Your task to perform on an android device: open app "Firefox Browser" (install if not already installed) and go to login screen Image 0: 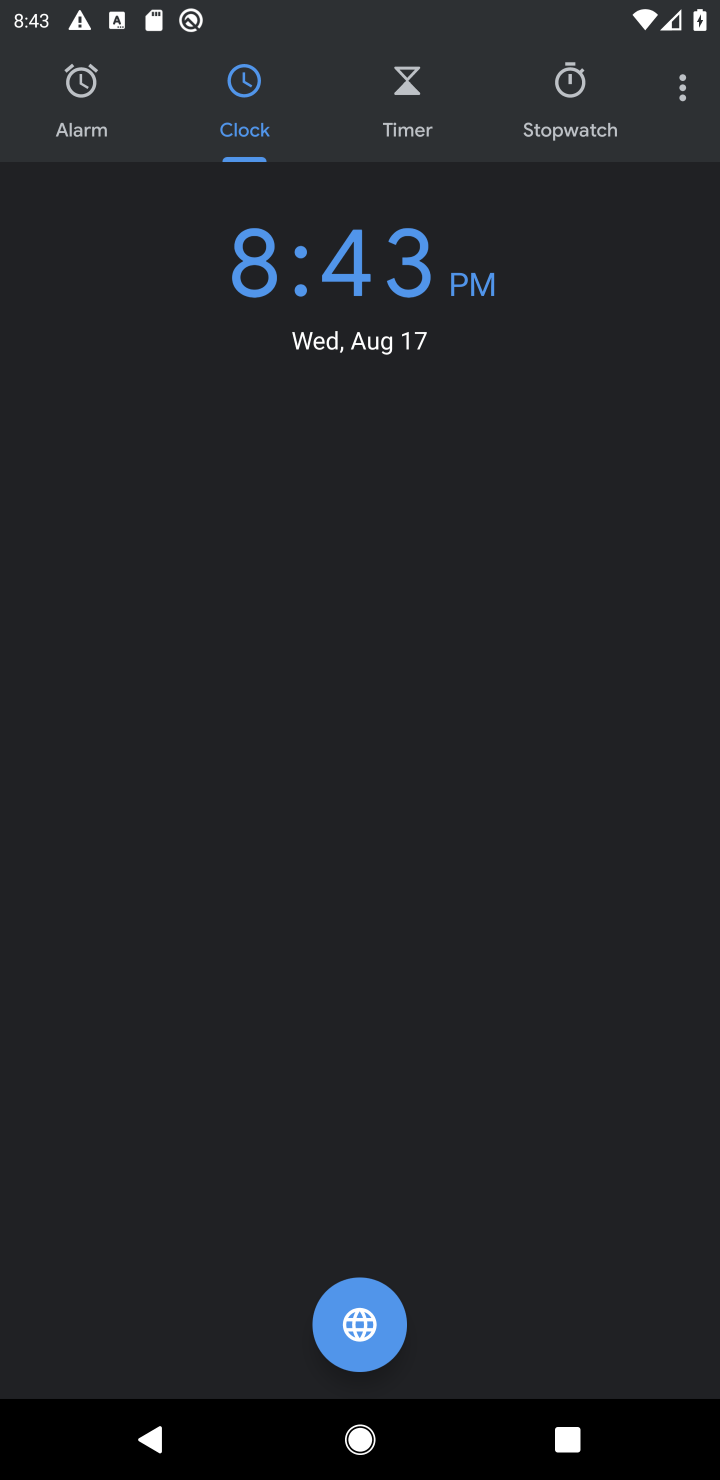
Step 0: press home button
Your task to perform on an android device: open app "Firefox Browser" (install if not already installed) and go to login screen Image 1: 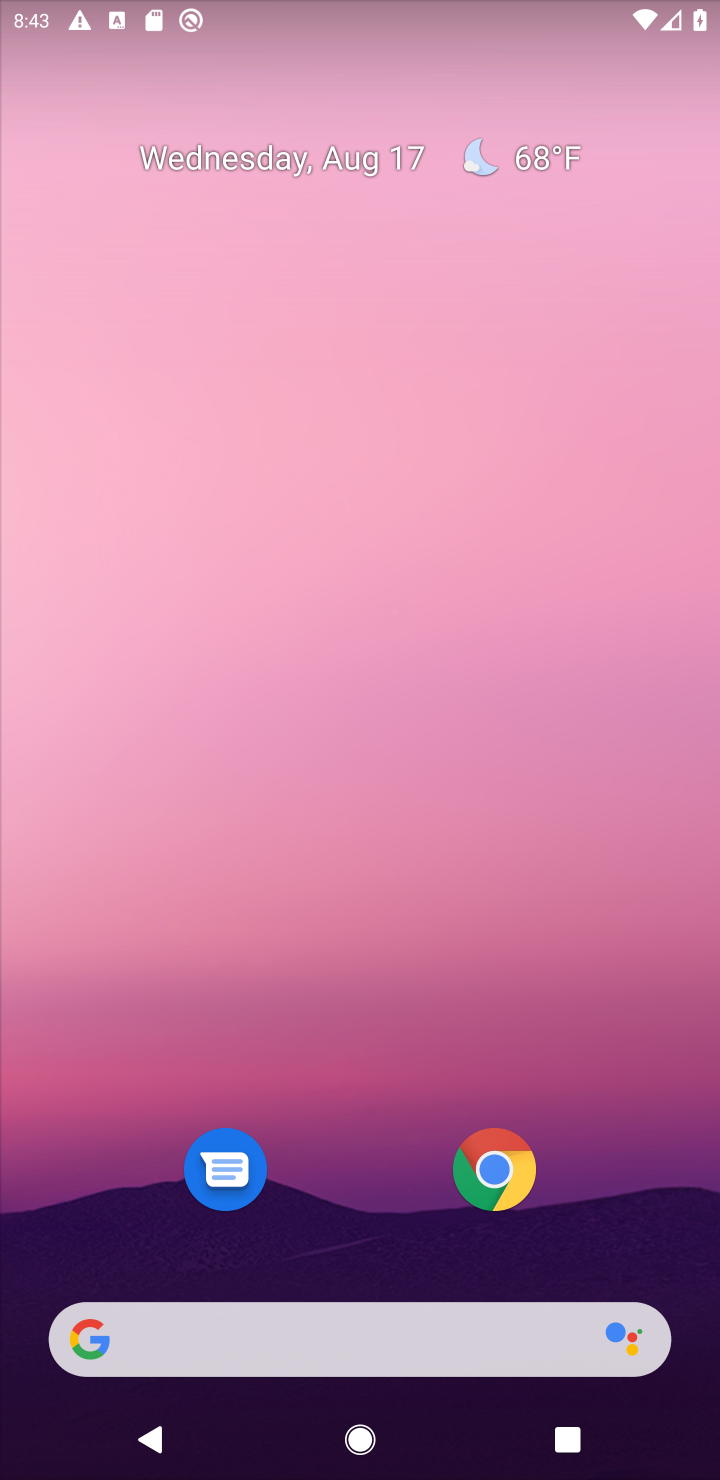
Step 1: drag from (349, 1284) to (357, 87)
Your task to perform on an android device: open app "Firefox Browser" (install if not already installed) and go to login screen Image 2: 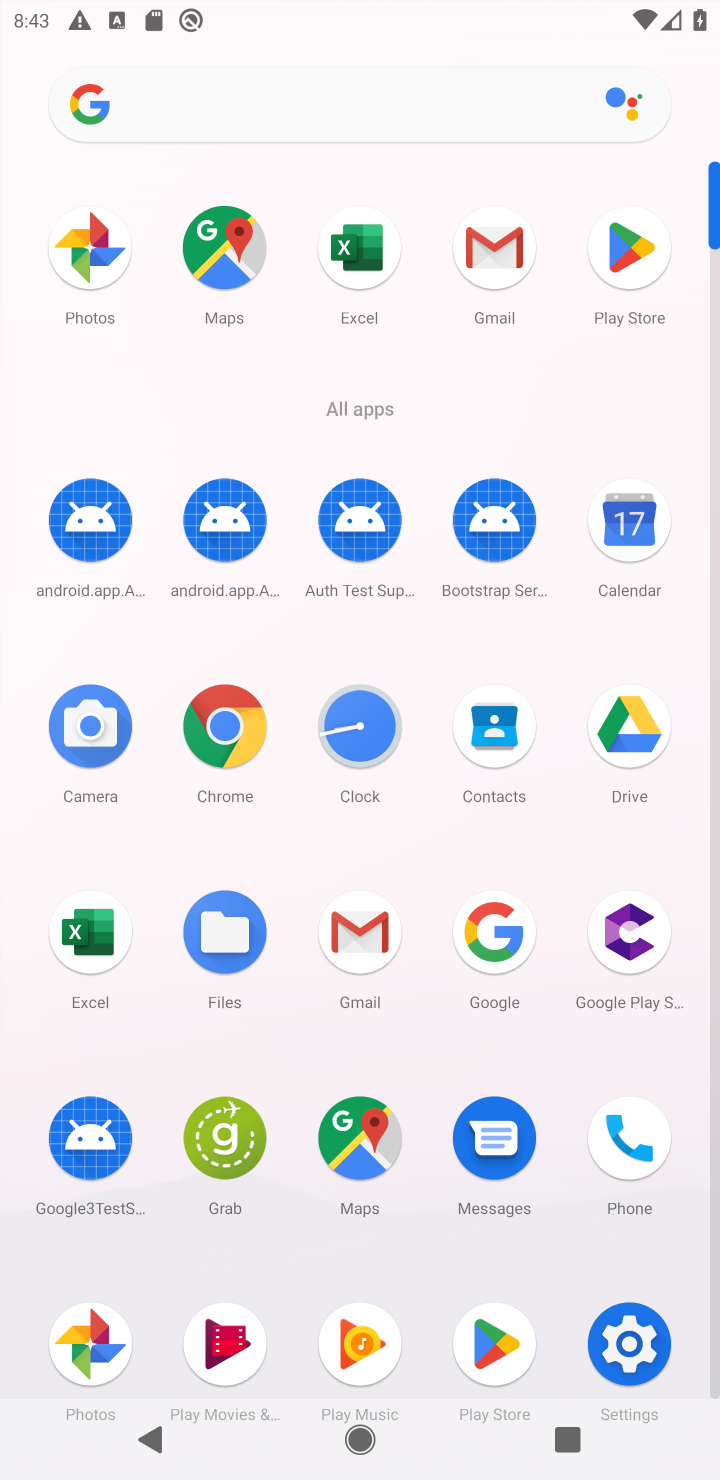
Step 2: click (644, 259)
Your task to perform on an android device: open app "Firefox Browser" (install if not already installed) and go to login screen Image 3: 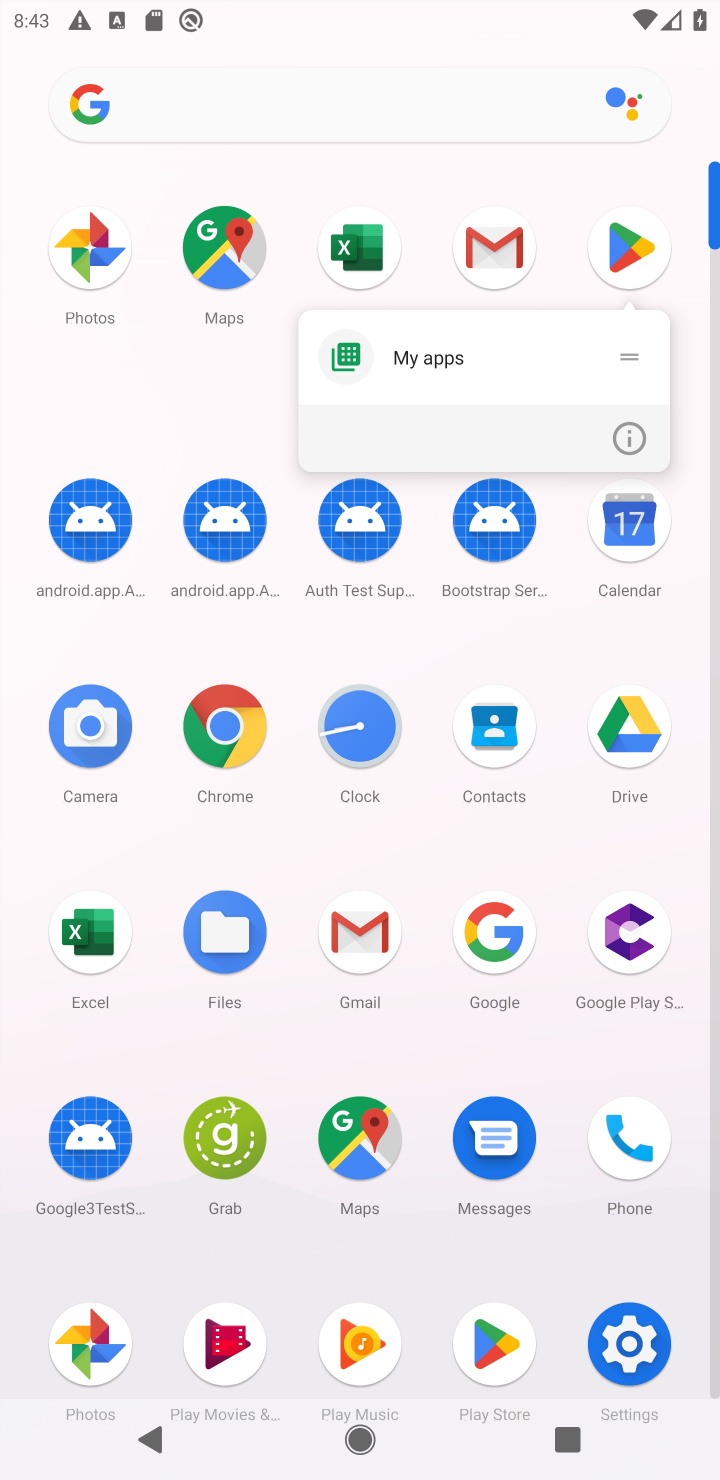
Step 3: click (645, 259)
Your task to perform on an android device: open app "Firefox Browser" (install if not already installed) and go to login screen Image 4: 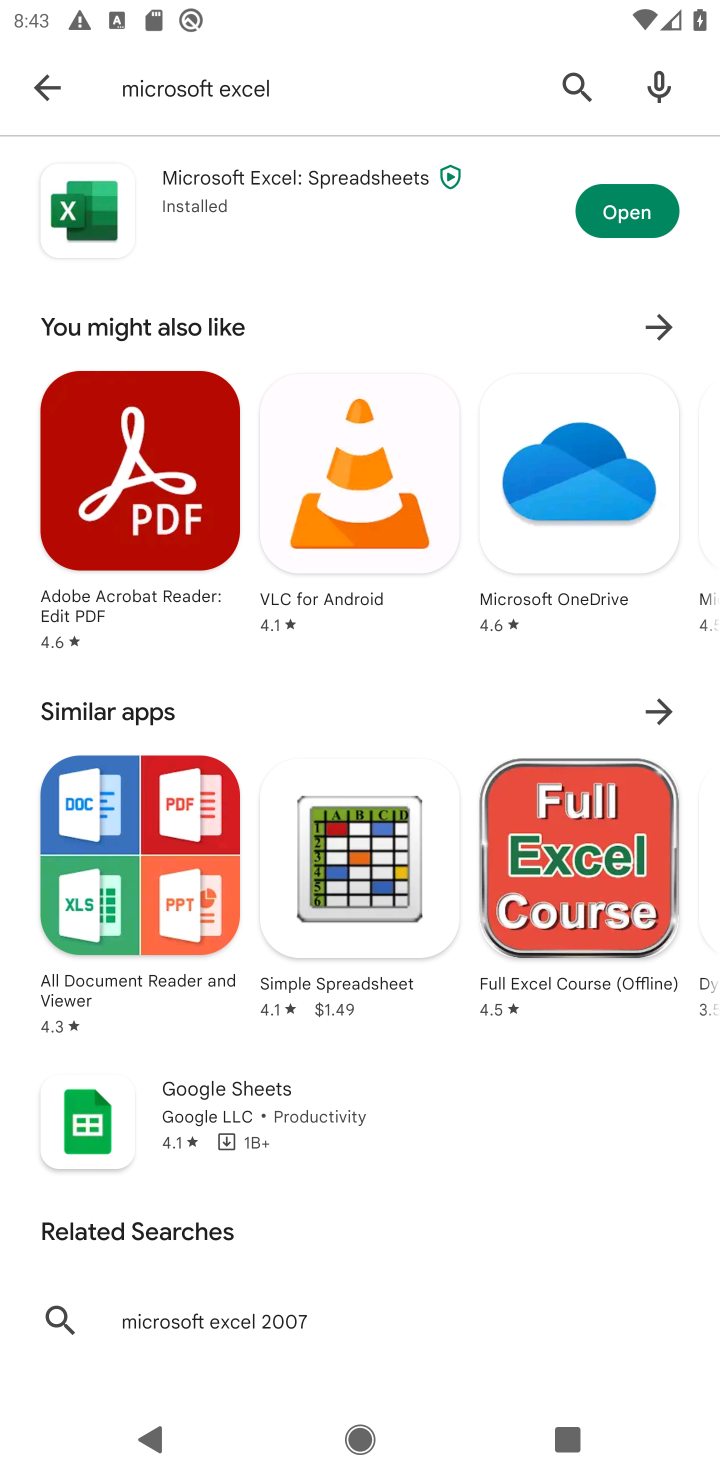
Step 4: click (266, 102)
Your task to perform on an android device: open app "Firefox Browser" (install if not already installed) and go to login screen Image 5: 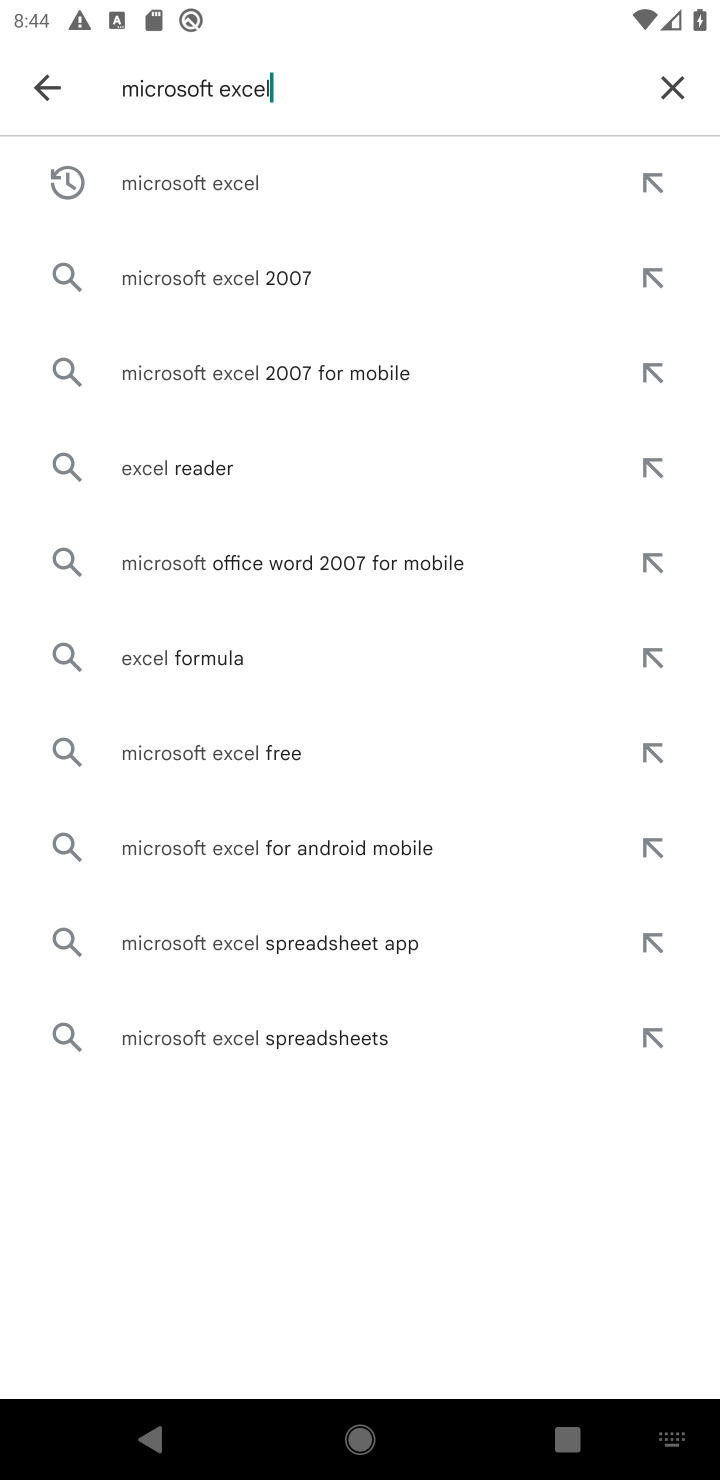
Step 5: click (678, 86)
Your task to perform on an android device: open app "Firefox Browser" (install if not already installed) and go to login screen Image 6: 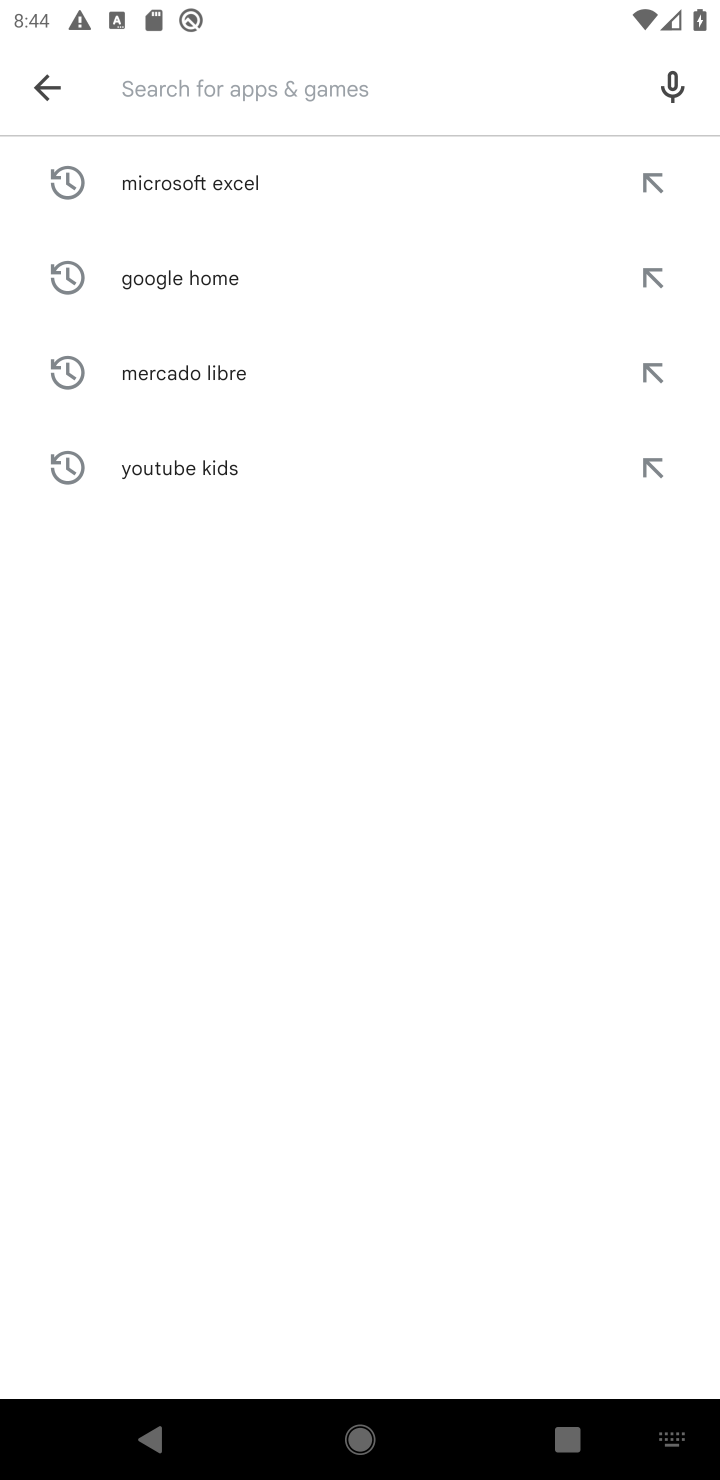
Step 6: type "firefox browser"
Your task to perform on an android device: open app "Firefox Browser" (install if not already installed) and go to login screen Image 7: 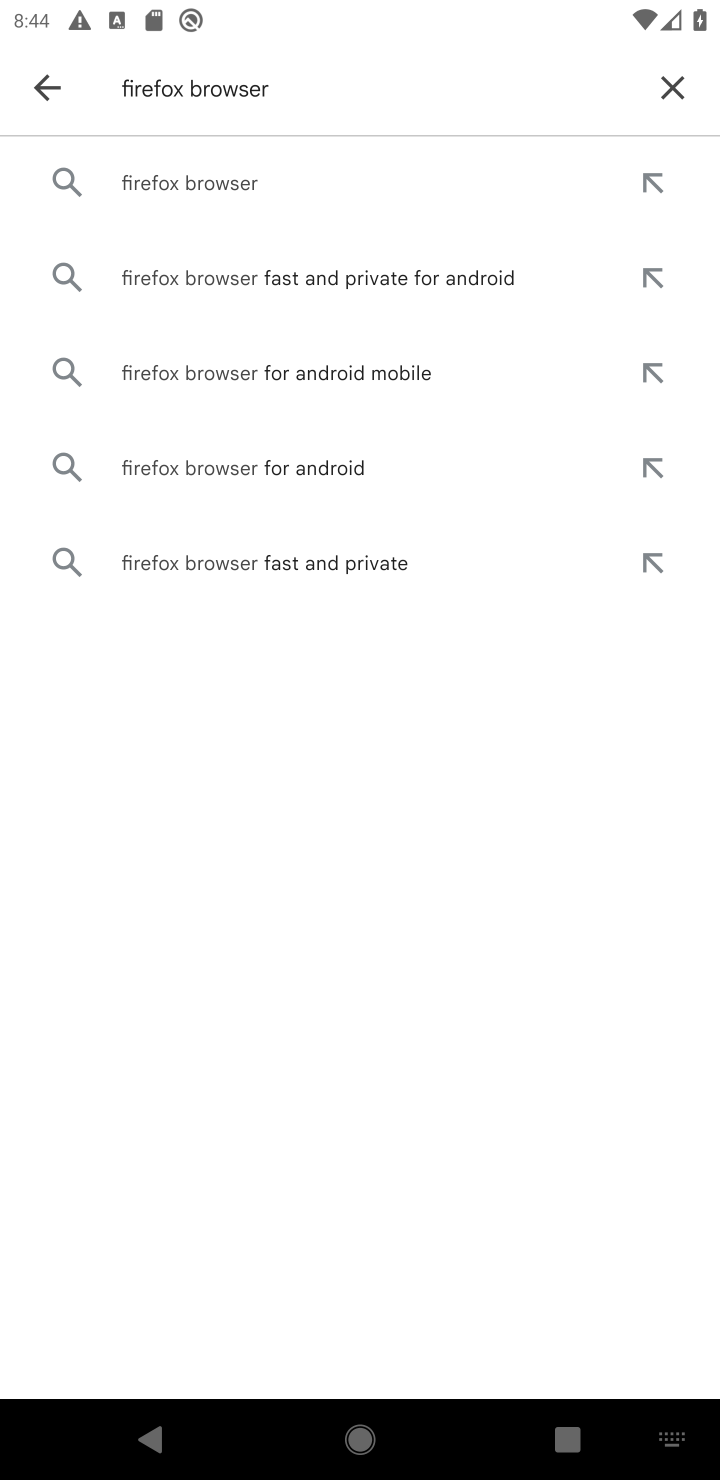
Step 7: click (199, 178)
Your task to perform on an android device: open app "Firefox Browser" (install if not already installed) and go to login screen Image 8: 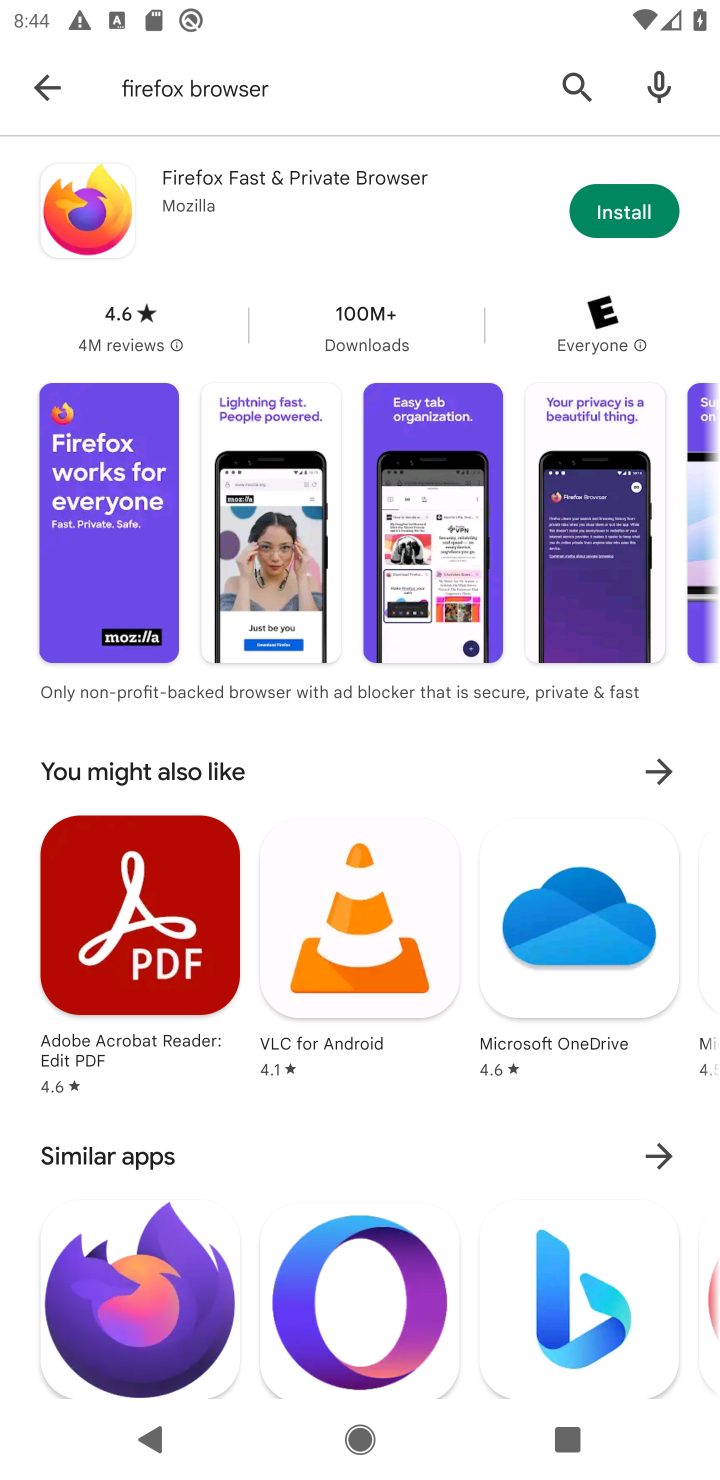
Step 8: click (659, 221)
Your task to perform on an android device: open app "Firefox Browser" (install if not already installed) and go to login screen Image 9: 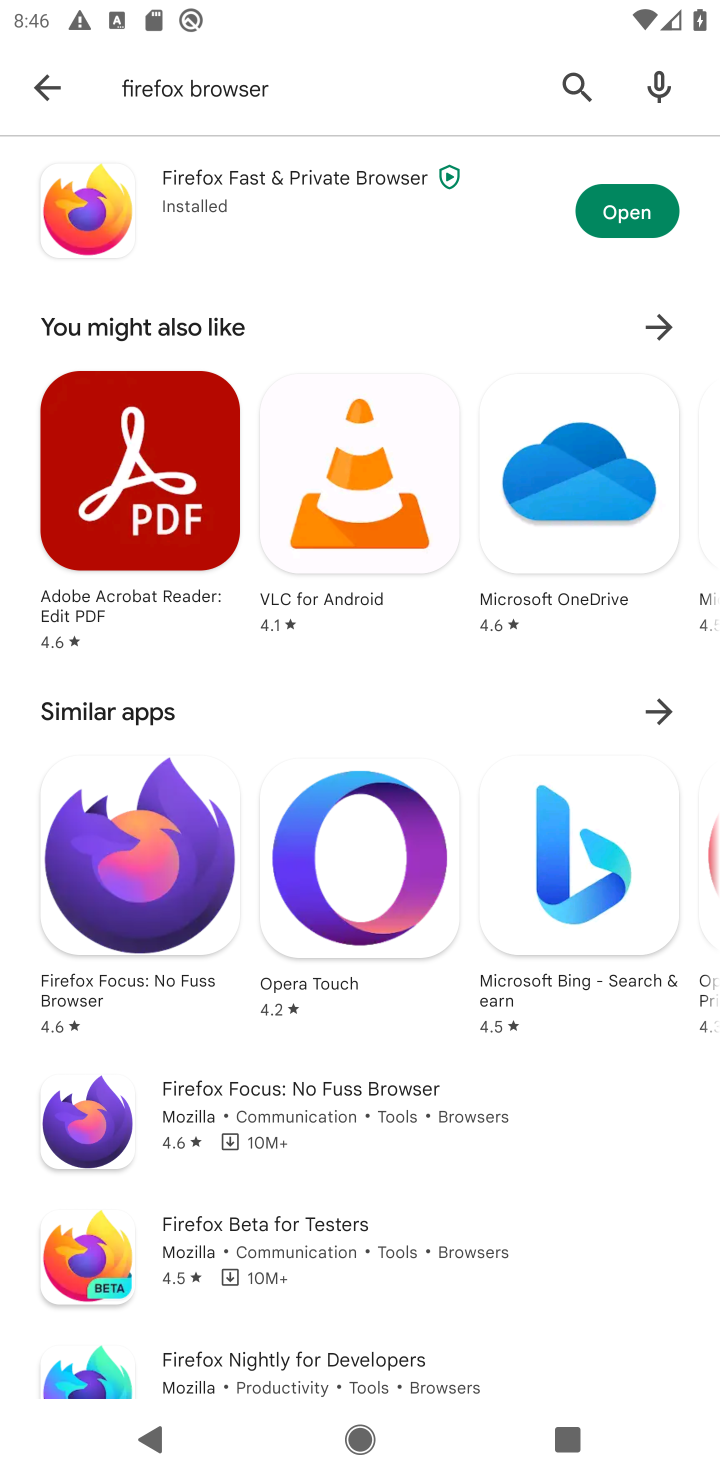
Step 9: click (614, 209)
Your task to perform on an android device: open app "Firefox Browser" (install if not already installed) and go to login screen Image 10: 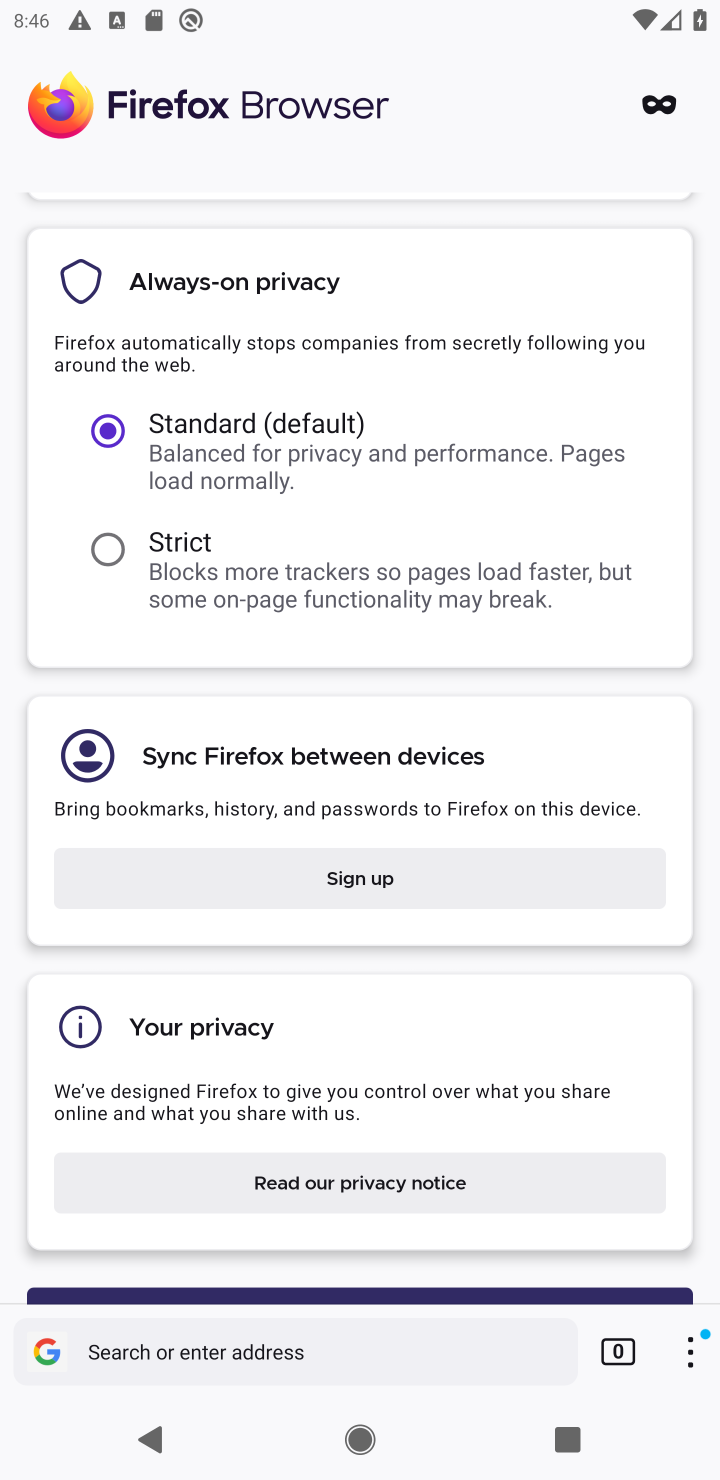
Step 10: click (372, 874)
Your task to perform on an android device: open app "Firefox Browser" (install if not already installed) and go to login screen Image 11: 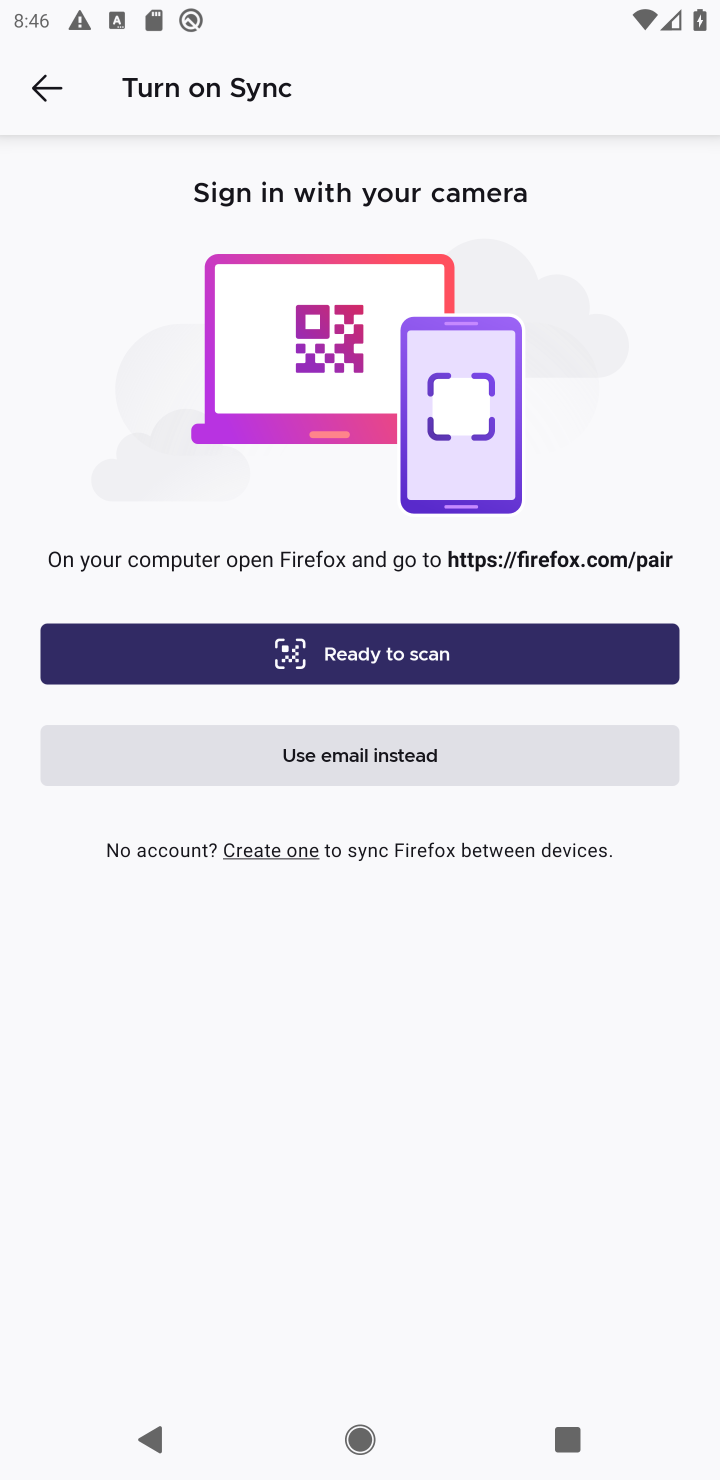
Step 11: click (360, 748)
Your task to perform on an android device: open app "Firefox Browser" (install if not already installed) and go to login screen Image 12: 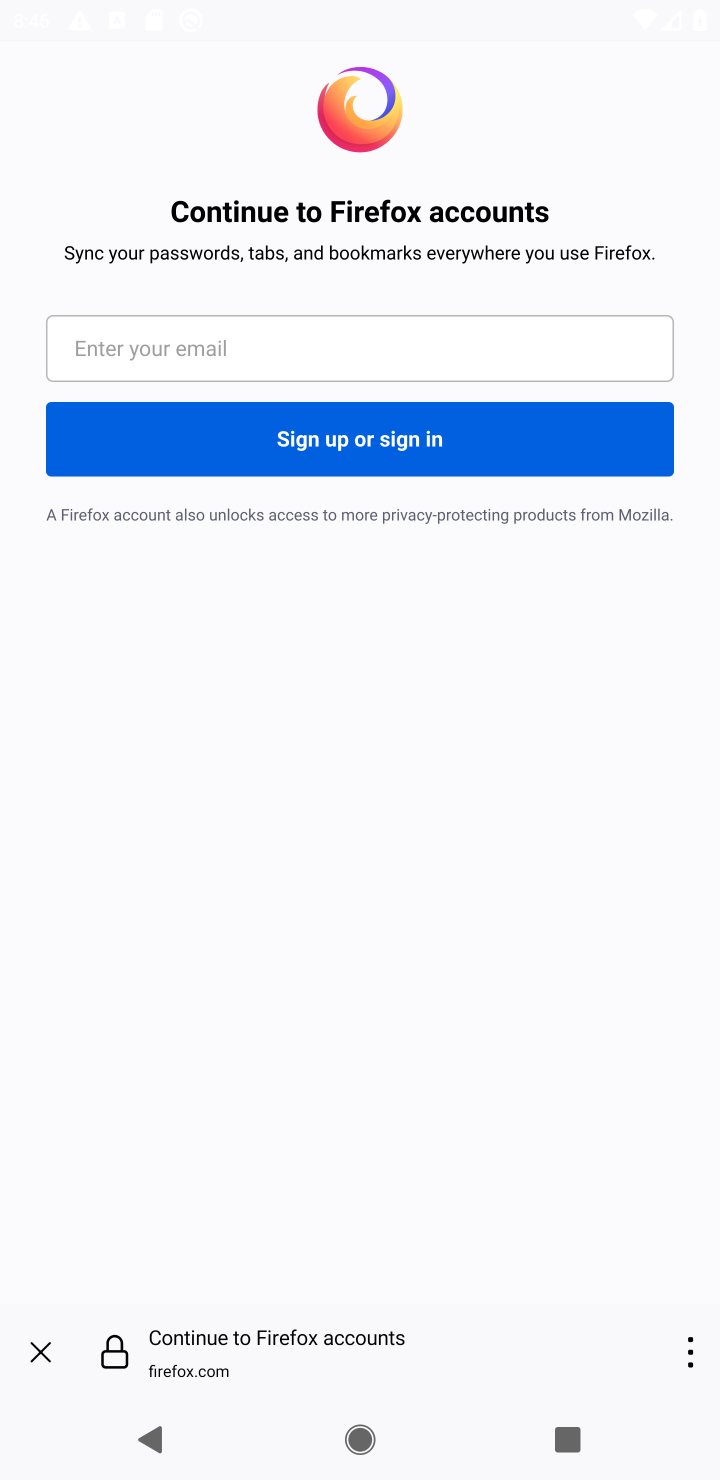
Step 12: task complete